Your task to perform on an android device: Is it going to rain this weekend? Image 0: 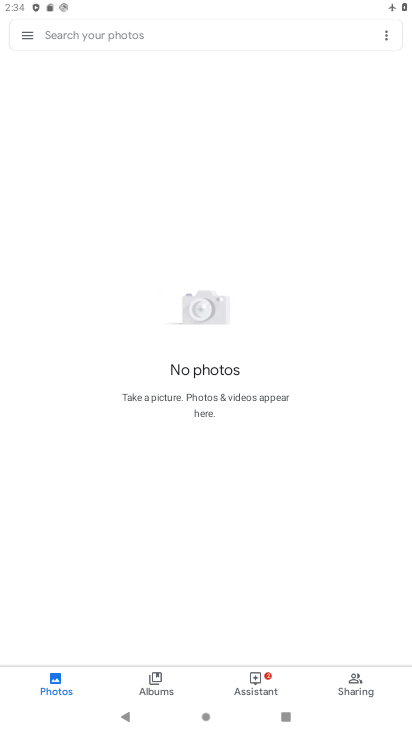
Step 0: press back button
Your task to perform on an android device: Is it going to rain this weekend? Image 1: 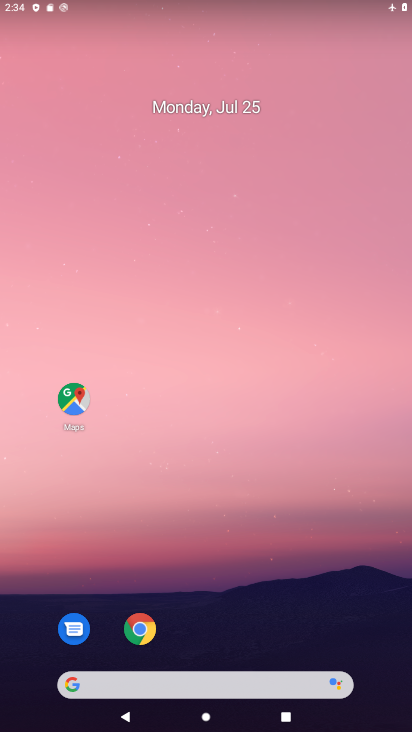
Step 1: drag from (205, 621) to (224, 212)
Your task to perform on an android device: Is it going to rain this weekend? Image 2: 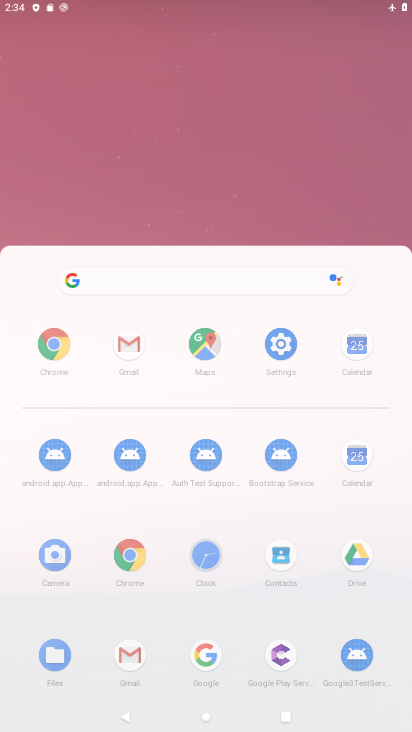
Step 2: drag from (270, 319) to (287, 170)
Your task to perform on an android device: Is it going to rain this weekend? Image 3: 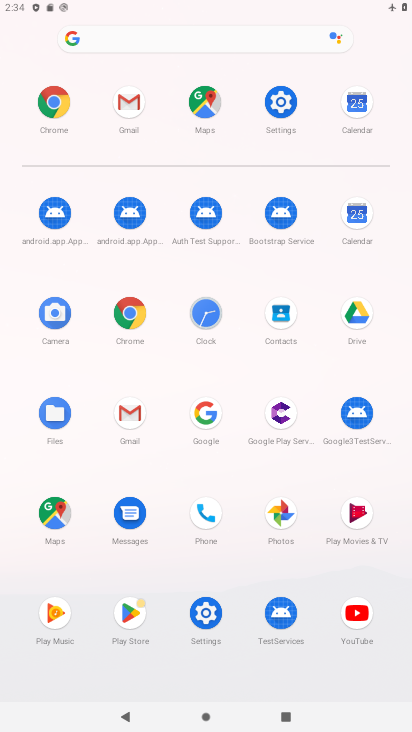
Step 3: click (274, 103)
Your task to perform on an android device: Is it going to rain this weekend? Image 4: 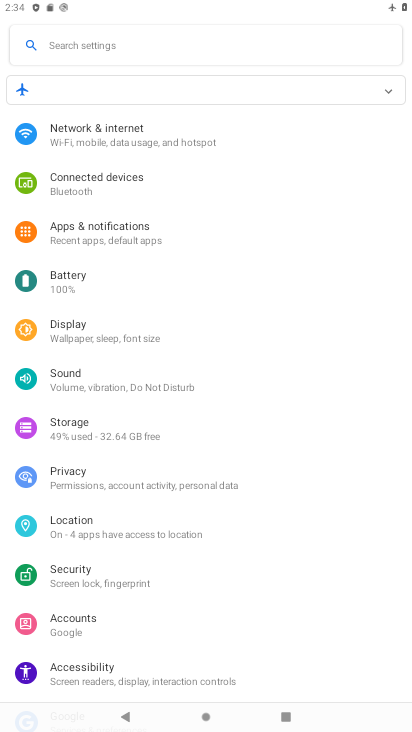
Step 4: click (98, 149)
Your task to perform on an android device: Is it going to rain this weekend? Image 5: 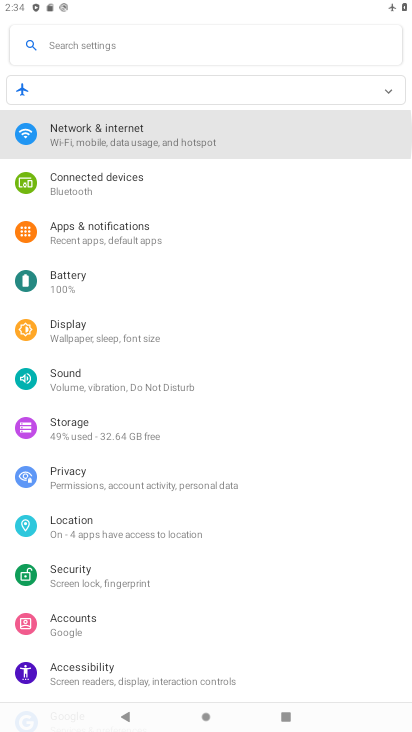
Step 5: click (94, 126)
Your task to perform on an android device: Is it going to rain this weekend? Image 6: 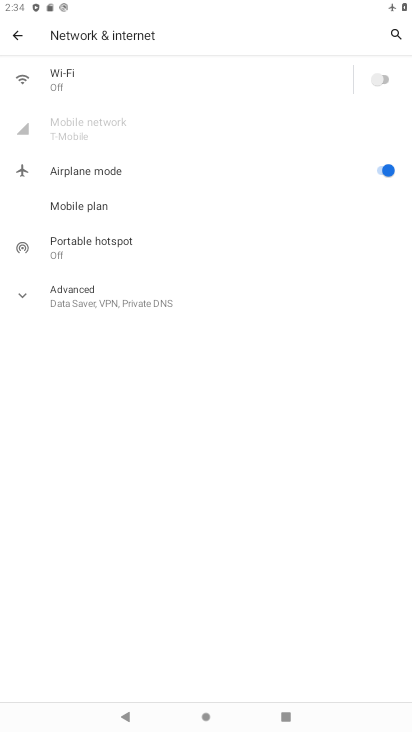
Step 6: click (380, 80)
Your task to perform on an android device: Is it going to rain this weekend? Image 7: 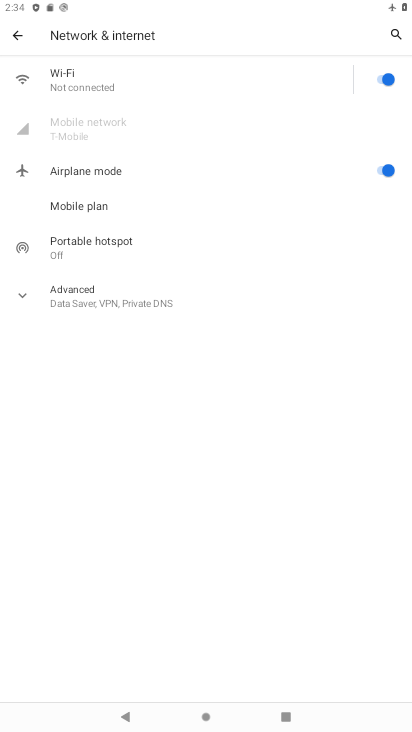
Step 7: click (384, 170)
Your task to perform on an android device: Is it going to rain this weekend? Image 8: 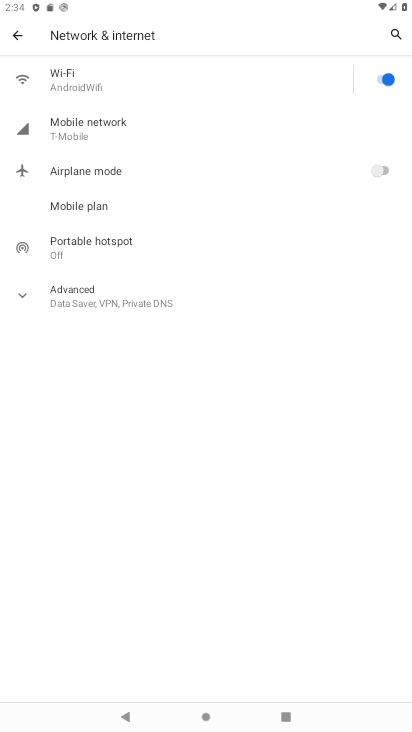
Step 8: press back button
Your task to perform on an android device: Is it going to rain this weekend? Image 9: 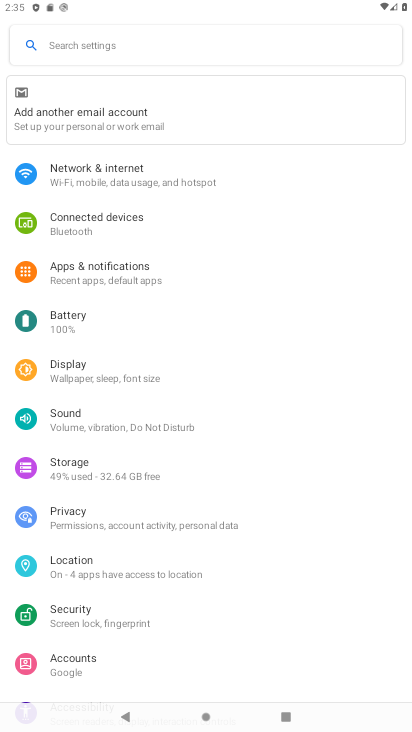
Step 9: press home button
Your task to perform on an android device: Is it going to rain this weekend? Image 10: 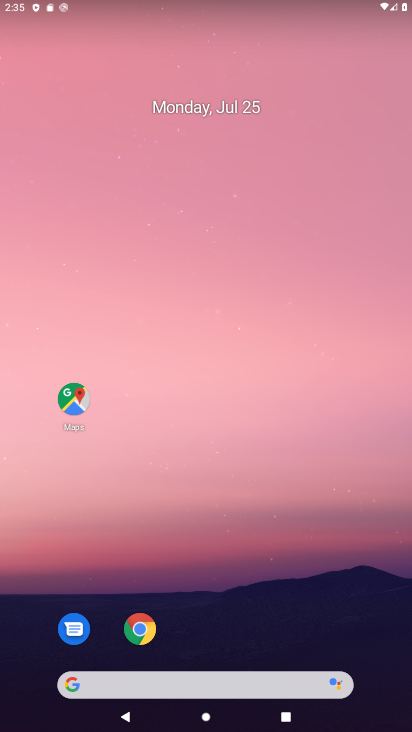
Step 10: drag from (182, 299) to (176, 188)
Your task to perform on an android device: Is it going to rain this weekend? Image 11: 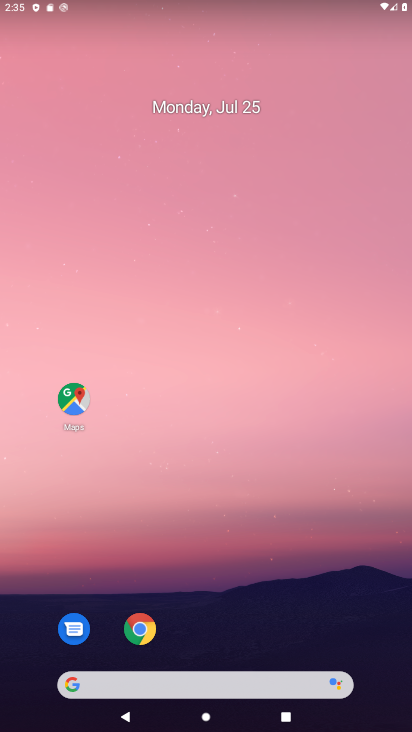
Step 11: drag from (185, 537) to (185, 154)
Your task to perform on an android device: Is it going to rain this weekend? Image 12: 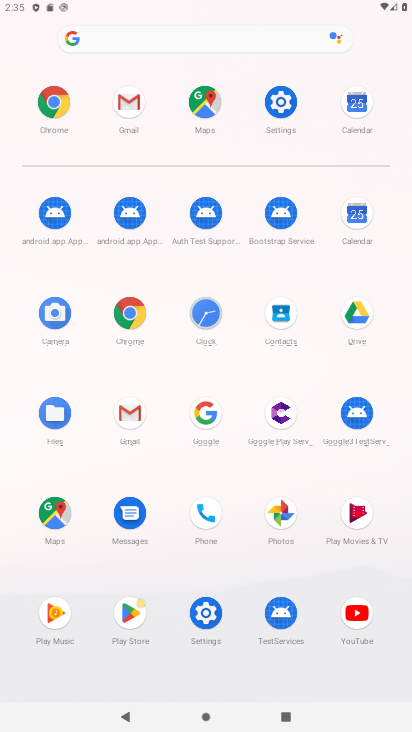
Step 12: click (56, 106)
Your task to perform on an android device: Is it going to rain this weekend? Image 13: 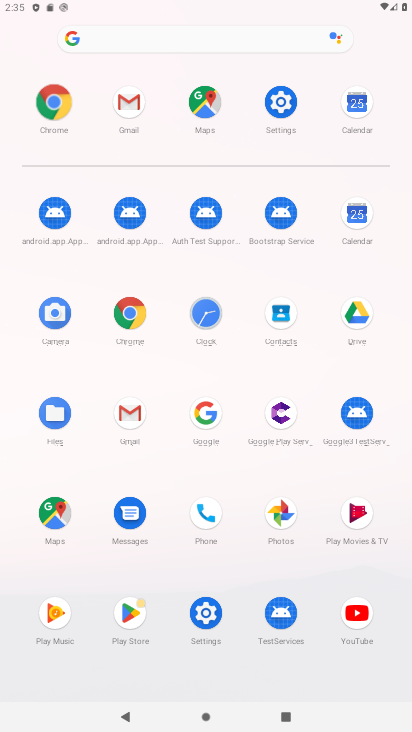
Step 13: click (56, 106)
Your task to perform on an android device: Is it going to rain this weekend? Image 14: 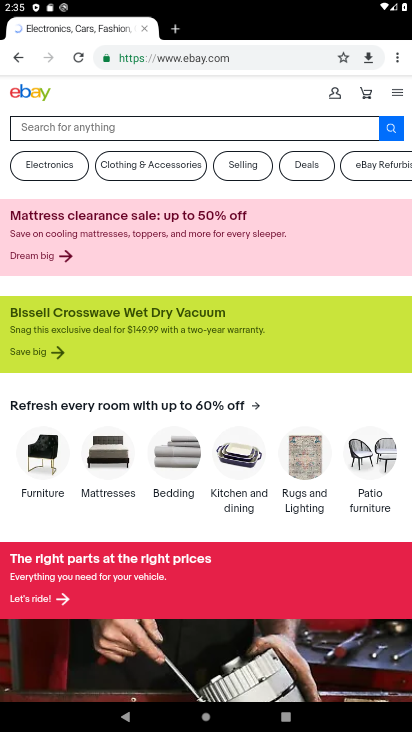
Step 14: click (151, 49)
Your task to perform on an android device: Is it going to rain this weekend? Image 15: 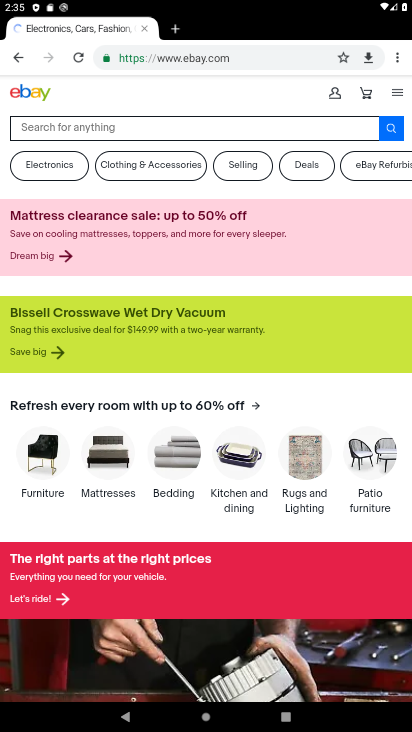
Step 15: click (151, 49)
Your task to perform on an android device: Is it going to rain this weekend? Image 16: 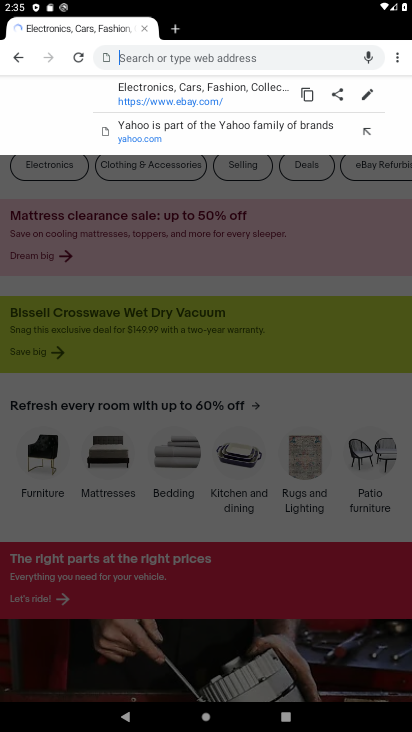
Step 16: click (151, 49)
Your task to perform on an android device: Is it going to rain this weekend? Image 17: 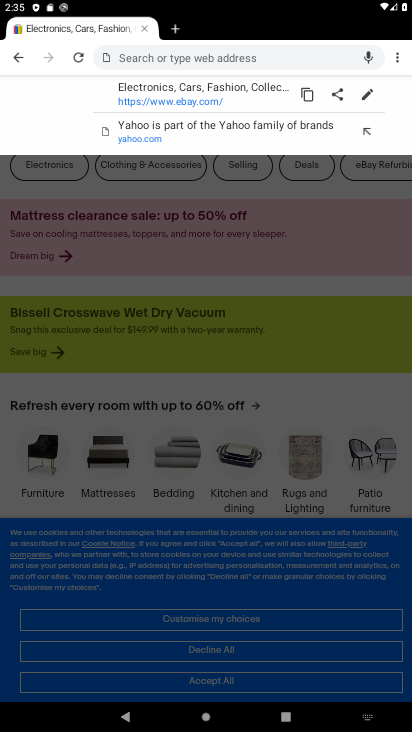
Step 17: type "rain this weekend"
Your task to perform on an android device: Is it going to rain this weekend? Image 18: 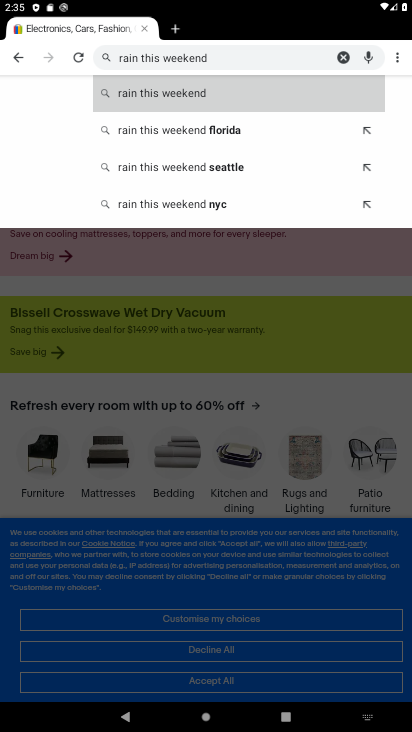
Step 18: click (200, 87)
Your task to perform on an android device: Is it going to rain this weekend? Image 19: 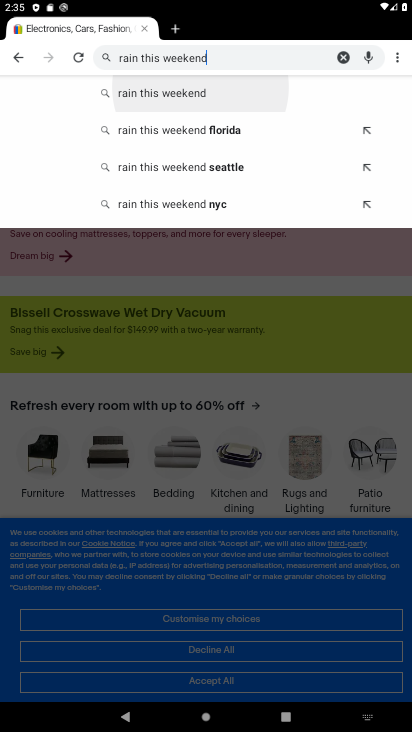
Step 19: click (198, 87)
Your task to perform on an android device: Is it going to rain this weekend? Image 20: 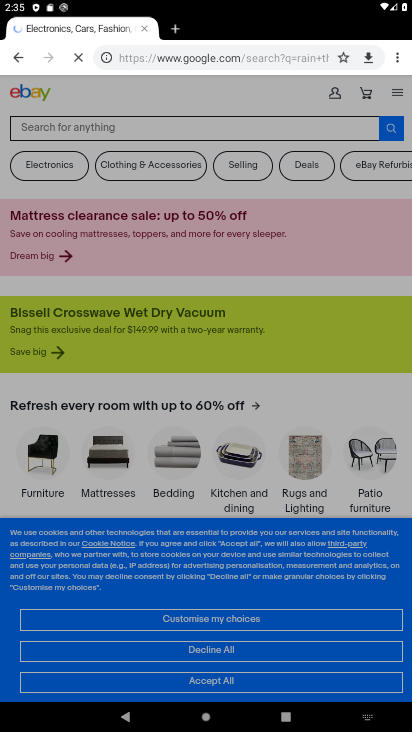
Step 20: click (196, 93)
Your task to perform on an android device: Is it going to rain this weekend? Image 21: 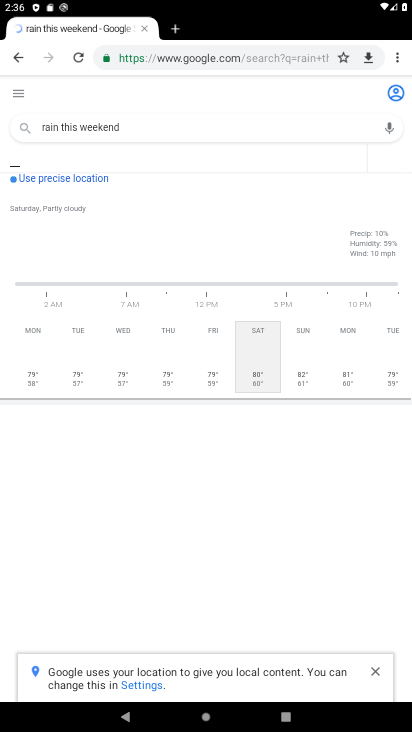
Step 21: task complete